Your task to perform on an android device: Open Wikipedia Image 0: 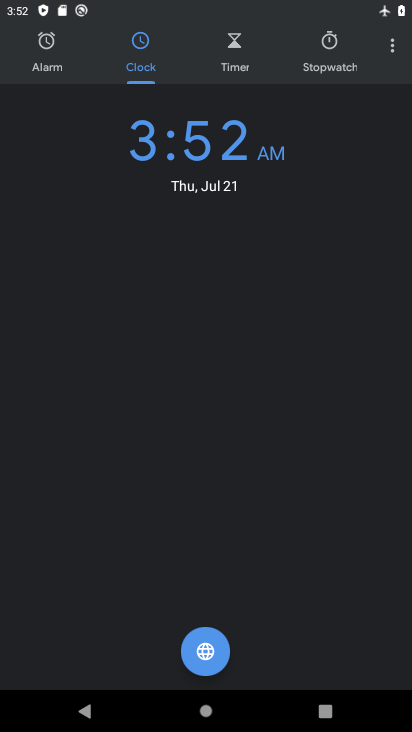
Step 0: press home button
Your task to perform on an android device: Open Wikipedia Image 1: 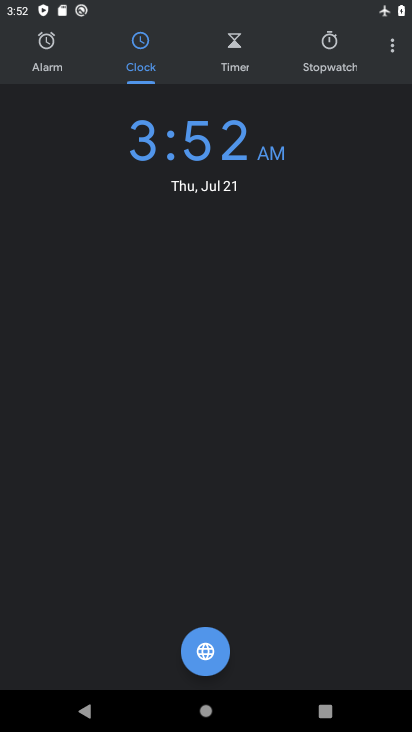
Step 1: press home button
Your task to perform on an android device: Open Wikipedia Image 2: 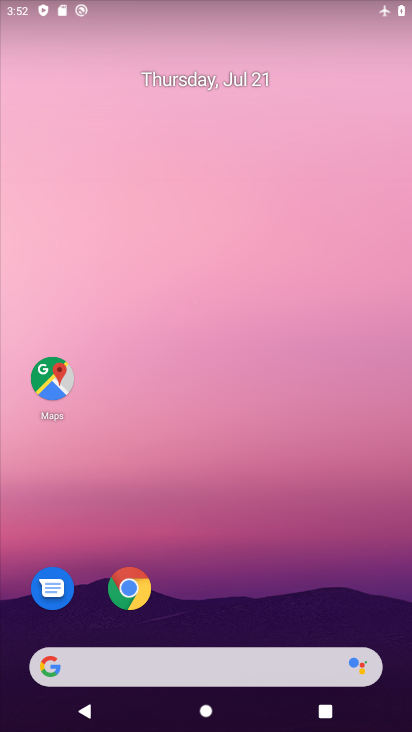
Step 2: click (140, 602)
Your task to perform on an android device: Open Wikipedia Image 3: 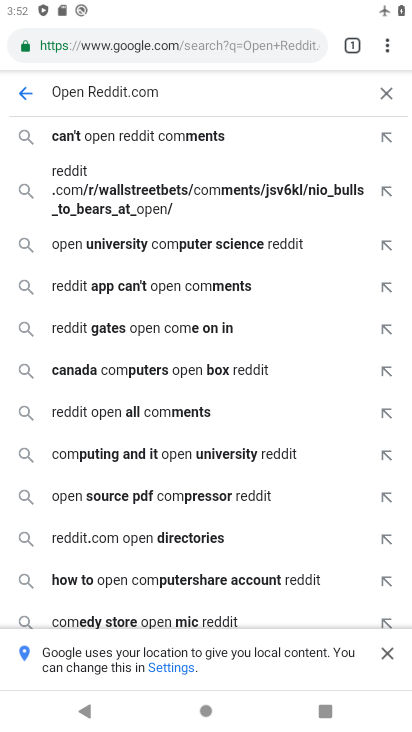
Step 3: click (394, 89)
Your task to perform on an android device: Open Wikipedia Image 4: 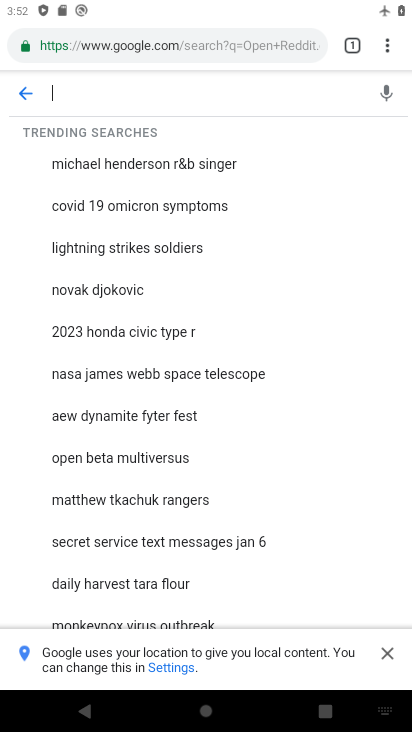
Step 4: click (23, 86)
Your task to perform on an android device: Open Wikipedia Image 5: 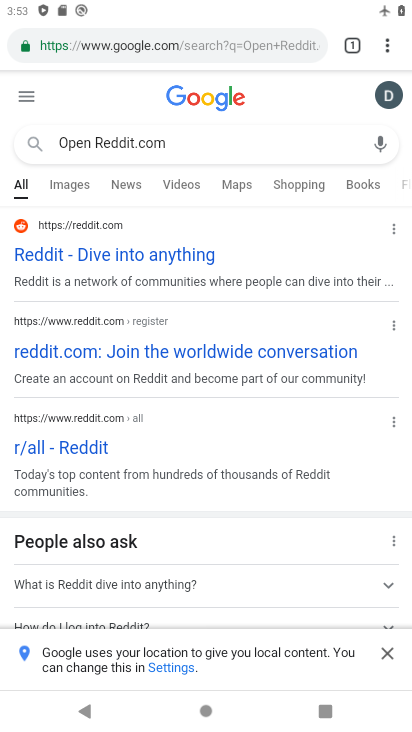
Step 5: click (191, 48)
Your task to perform on an android device: Open Wikipedia Image 6: 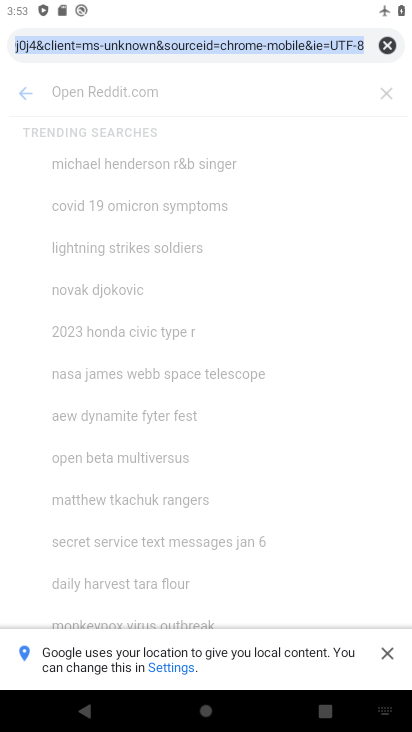
Step 6: type " web browser"
Your task to perform on an android device: Open Wikipedia Image 7: 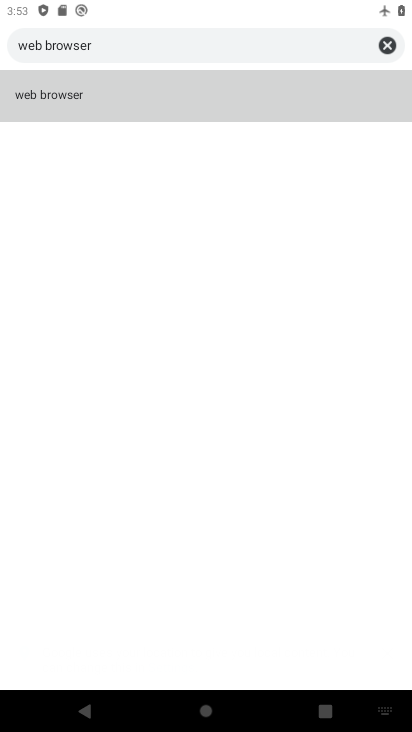
Step 7: click (177, 83)
Your task to perform on an android device: Open Wikipedia Image 8: 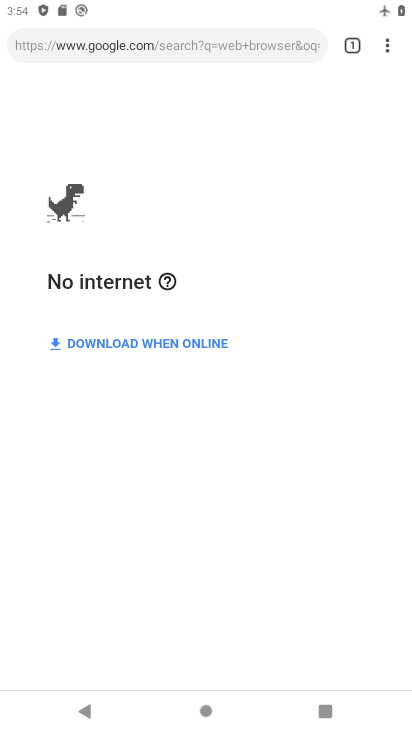
Step 8: drag from (243, 6) to (377, 668)
Your task to perform on an android device: Open Wikipedia Image 9: 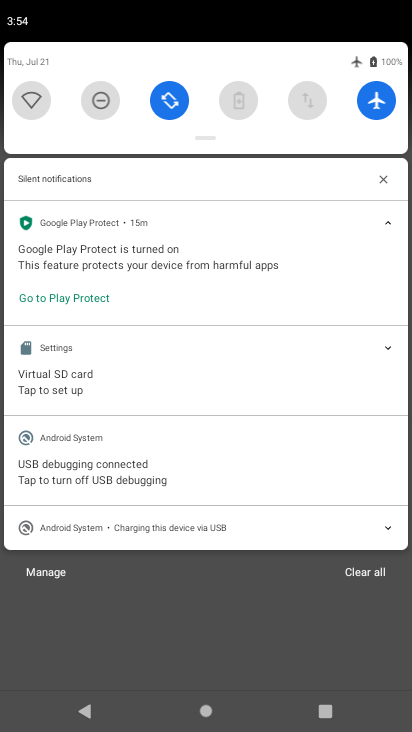
Step 9: click (377, 96)
Your task to perform on an android device: Open Wikipedia Image 10: 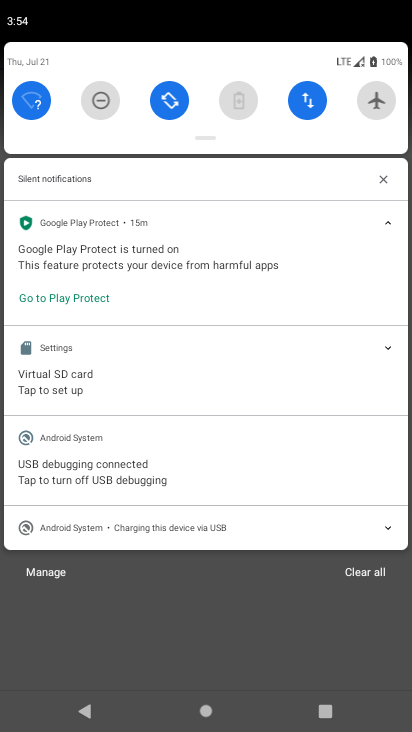
Step 10: click (274, 608)
Your task to perform on an android device: Open Wikipedia Image 11: 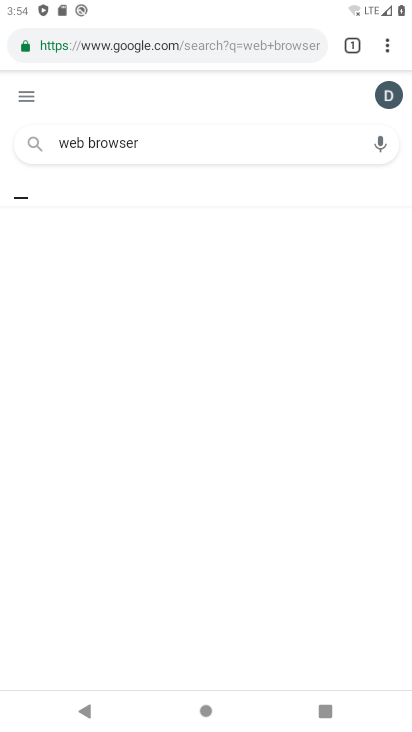
Step 11: type "Wikipedia"
Your task to perform on an android device: Open Wikipedia Image 12: 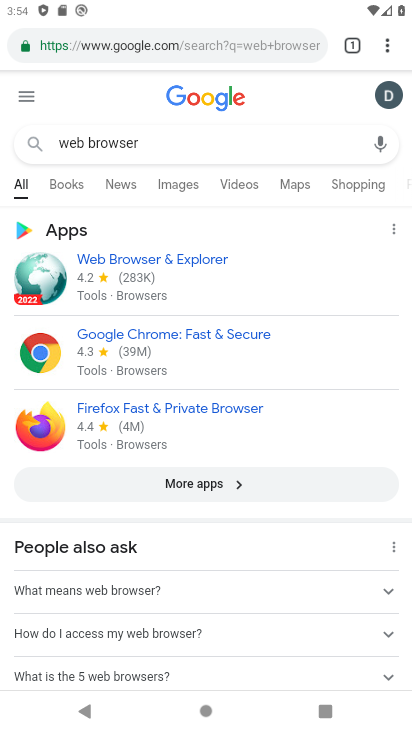
Step 12: click (221, 41)
Your task to perform on an android device: Open Wikipedia Image 13: 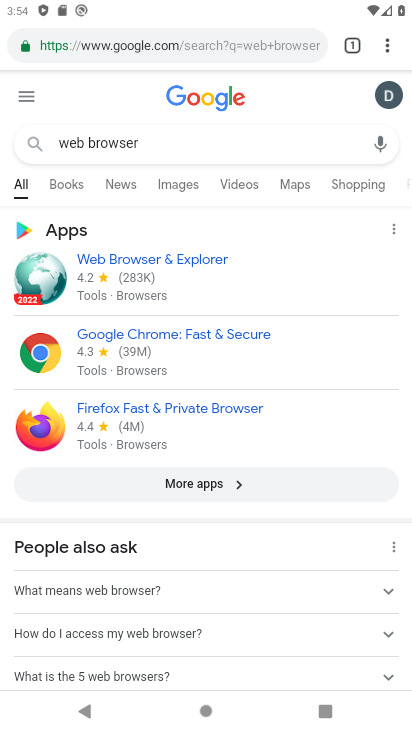
Step 13: click (221, 41)
Your task to perform on an android device: Open Wikipedia Image 14: 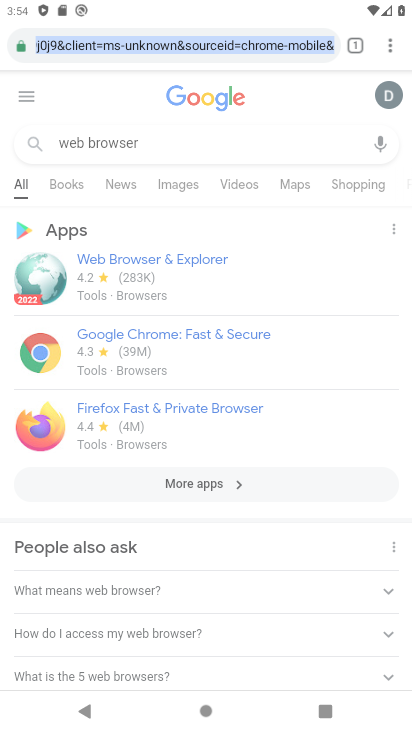
Step 14: click (221, 41)
Your task to perform on an android device: Open Wikipedia Image 15: 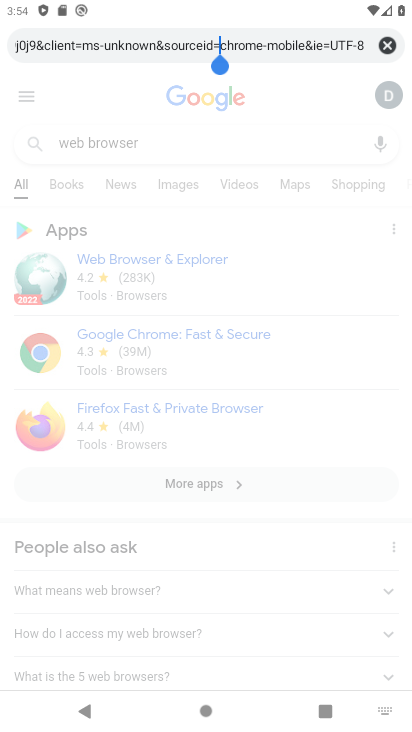
Step 15: click (221, 41)
Your task to perform on an android device: Open Wikipedia Image 16: 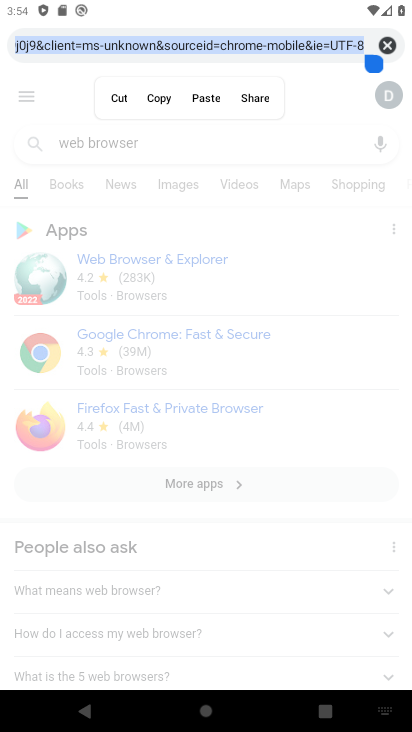
Step 16: type "Wikipedia"
Your task to perform on an android device: Open Wikipedia Image 17: 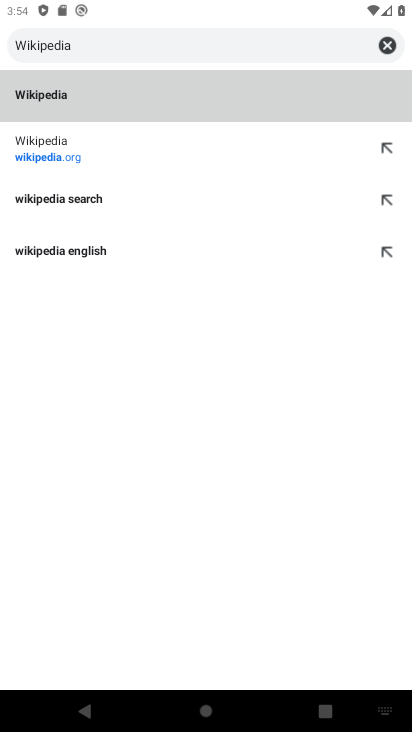
Step 17: click (55, 143)
Your task to perform on an android device: Open Wikipedia Image 18: 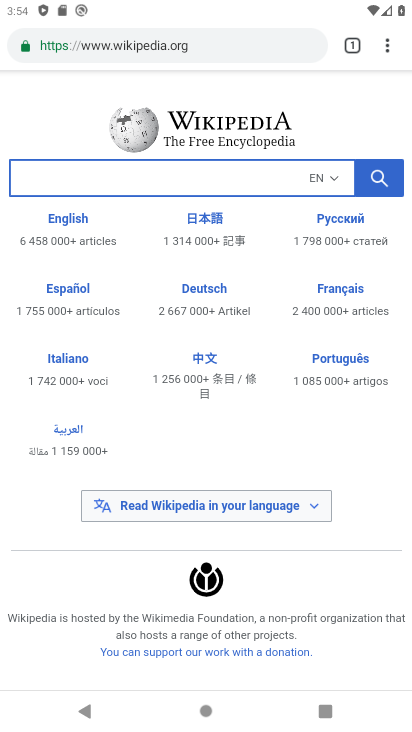
Step 18: task complete